Your task to perform on an android device: visit the assistant section in the google photos Image 0: 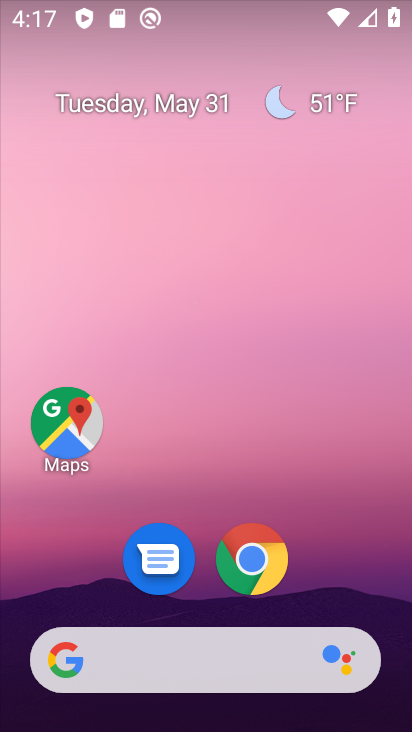
Step 0: drag from (339, 595) to (371, 3)
Your task to perform on an android device: visit the assistant section in the google photos Image 1: 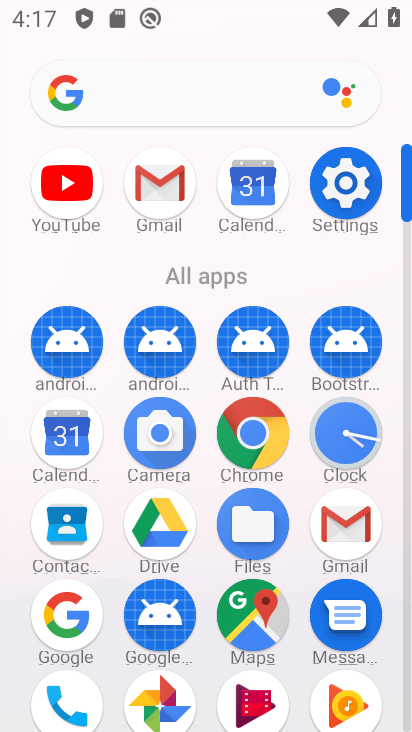
Step 1: click (149, 702)
Your task to perform on an android device: visit the assistant section in the google photos Image 2: 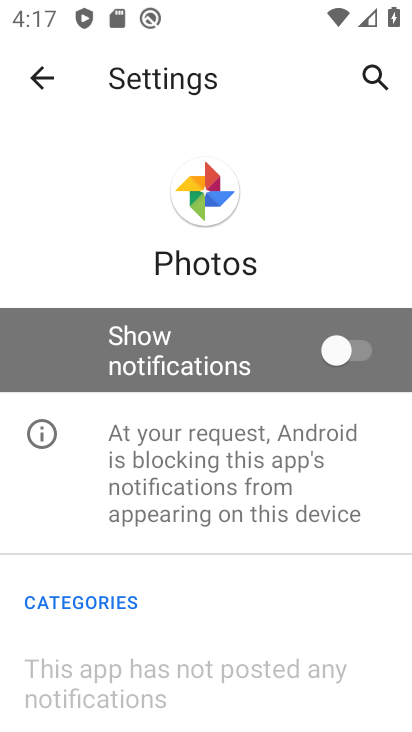
Step 2: click (44, 80)
Your task to perform on an android device: visit the assistant section in the google photos Image 3: 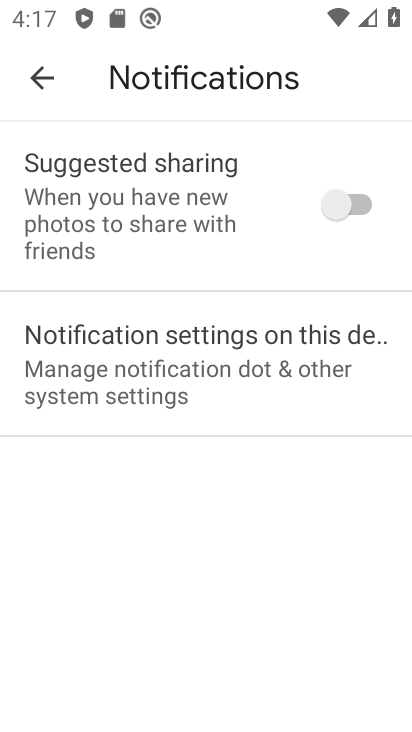
Step 3: click (34, 91)
Your task to perform on an android device: visit the assistant section in the google photos Image 4: 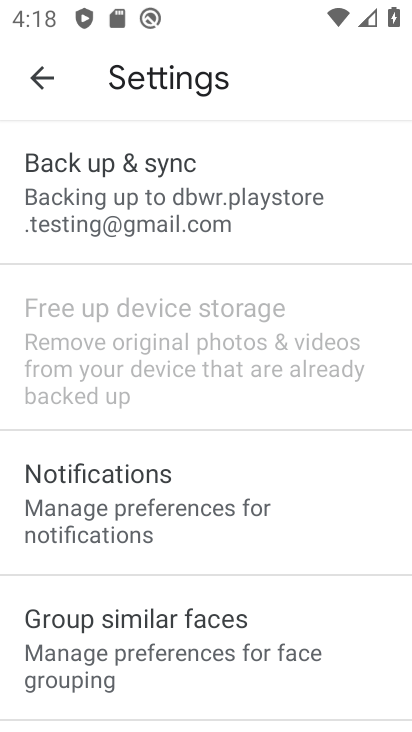
Step 4: click (39, 96)
Your task to perform on an android device: visit the assistant section in the google photos Image 5: 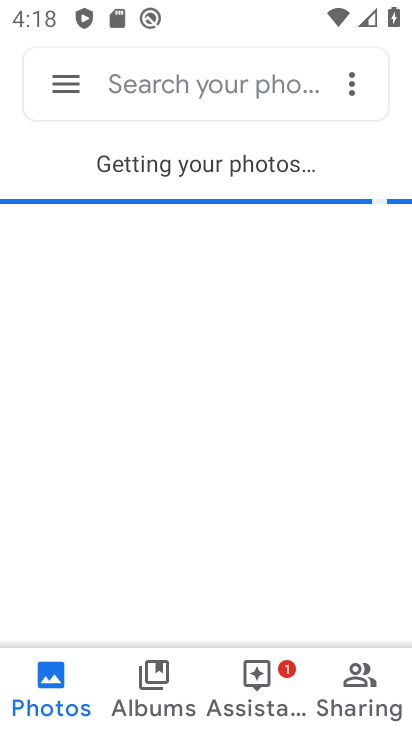
Step 5: click (252, 686)
Your task to perform on an android device: visit the assistant section in the google photos Image 6: 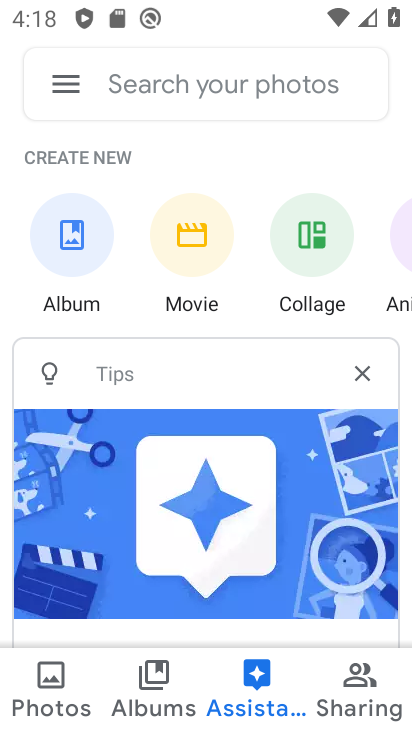
Step 6: task complete